Your task to perform on an android device: open app "Google Translate" (install if not already installed) Image 0: 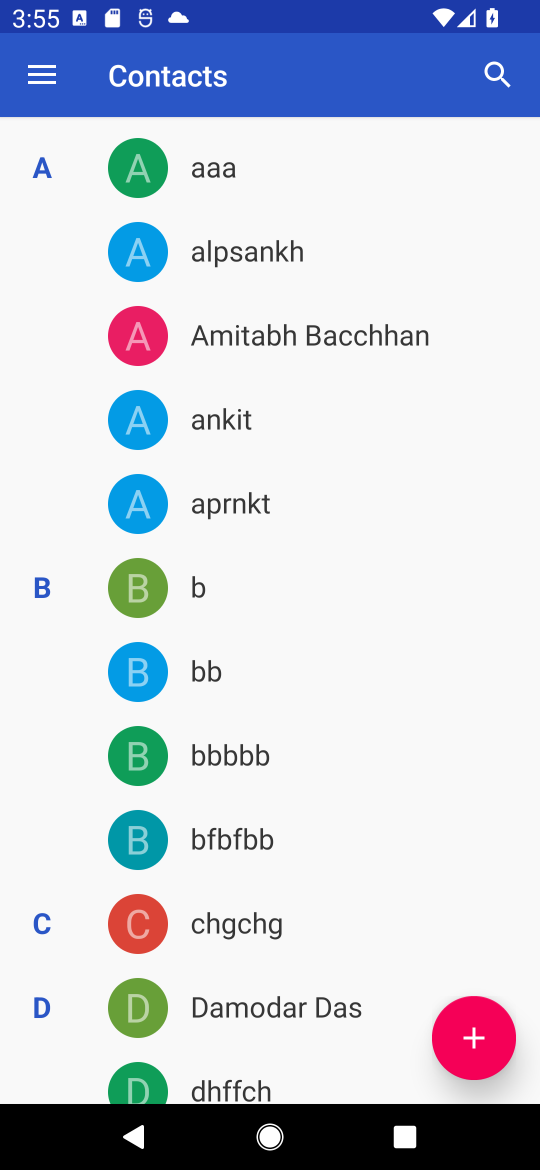
Step 0: press home button
Your task to perform on an android device: open app "Google Translate" (install if not already installed) Image 1: 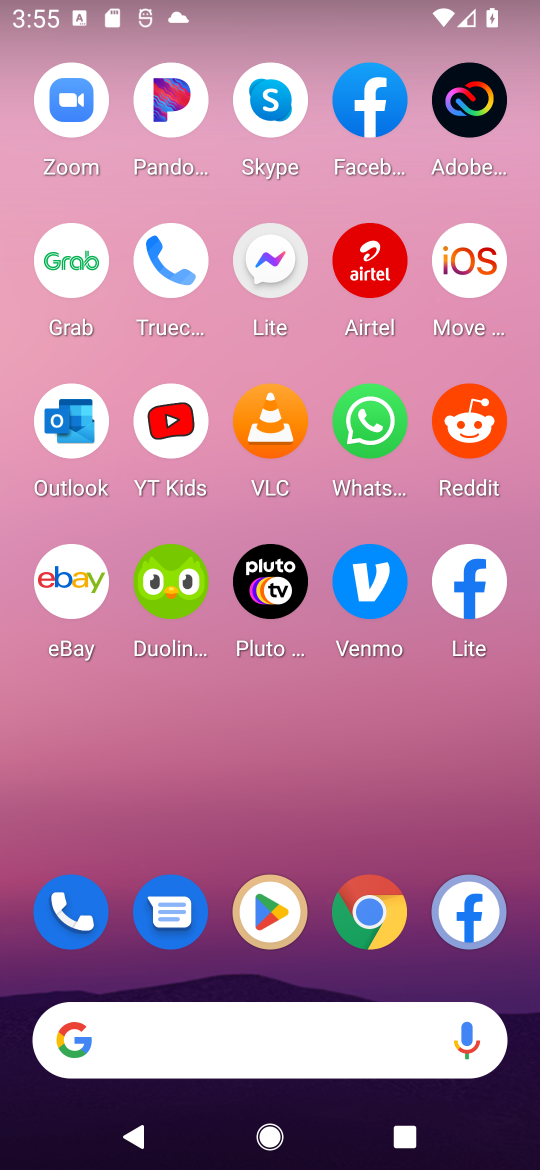
Step 1: drag from (176, 1049) to (302, 203)
Your task to perform on an android device: open app "Google Translate" (install if not already installed) Image 2: 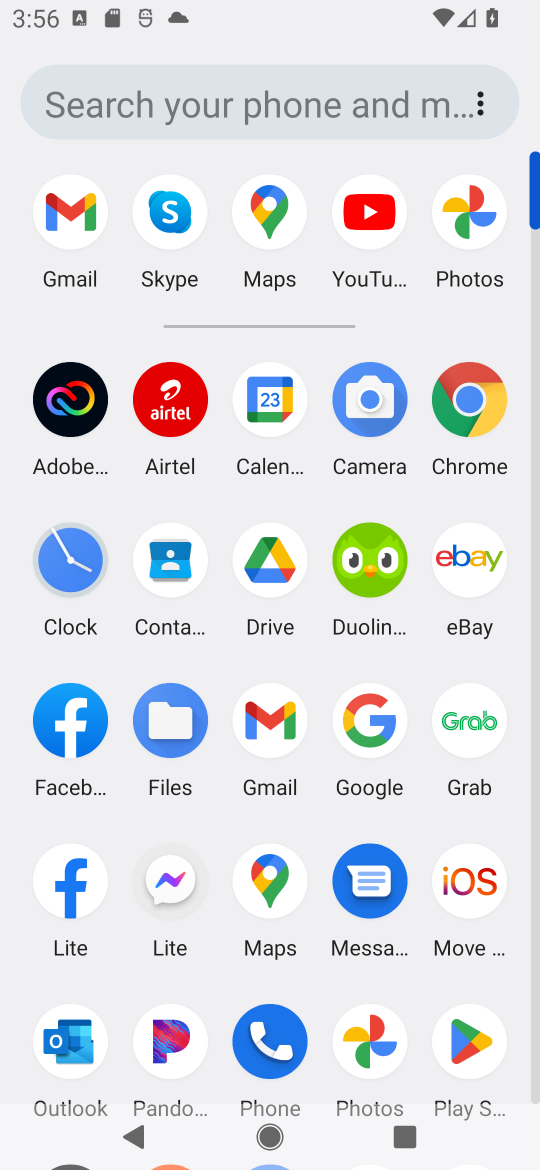
Step 2: click (470, 1039)
Your task to perform on an android device: open app "Google Translate" (install if not already installed) Image 3: 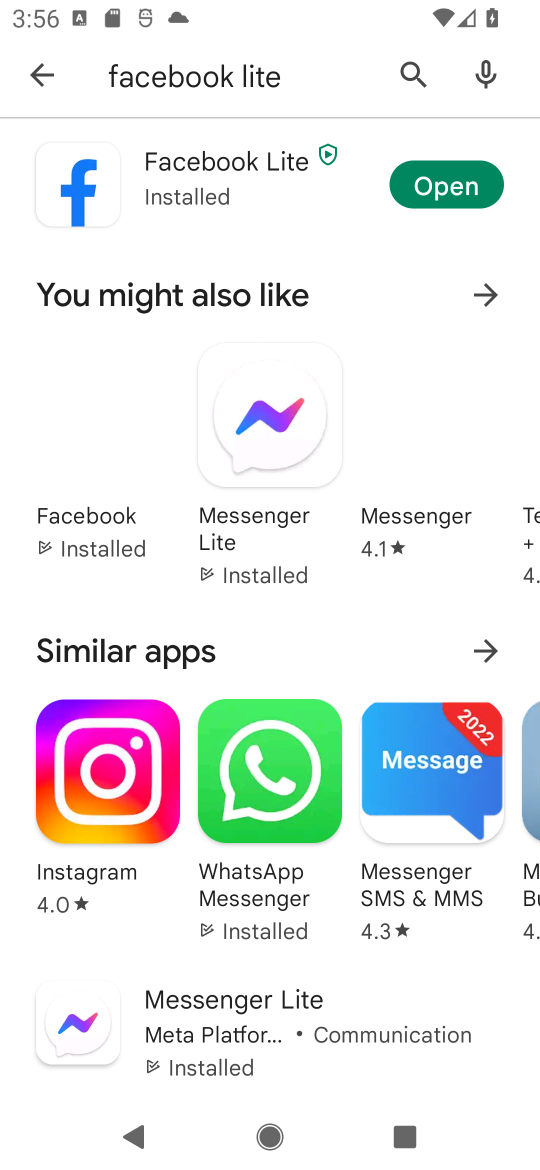
Step 3: press back button
Your task to perform on an android device: open app "Google Translate" (install if not already installed) Image 4: 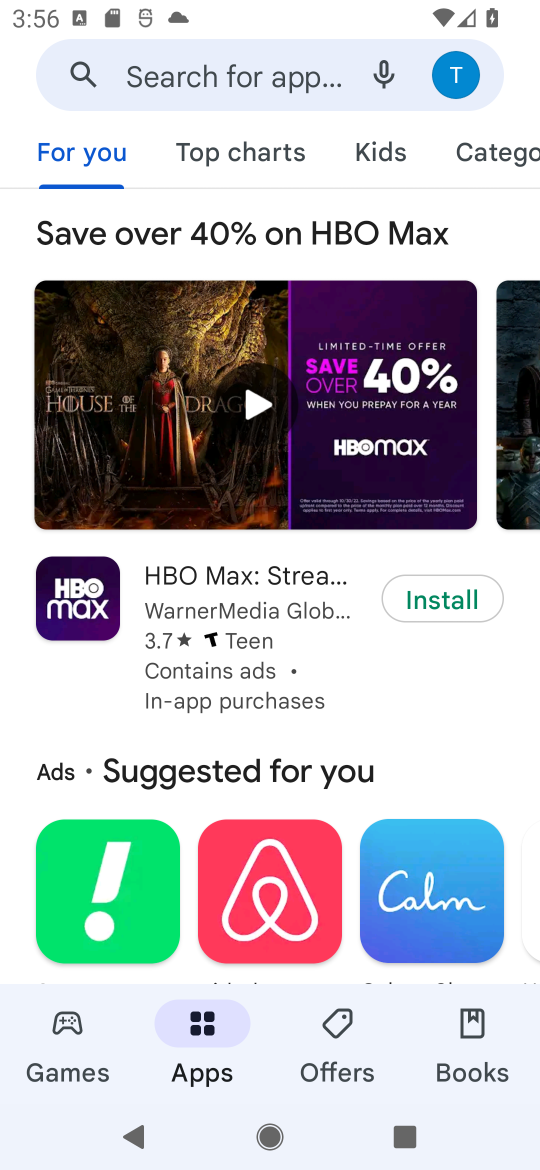
Step 4: click (224, 53)
Your task to perform on an android device: open app "Google Translate" (install if not already installed) Image 5: 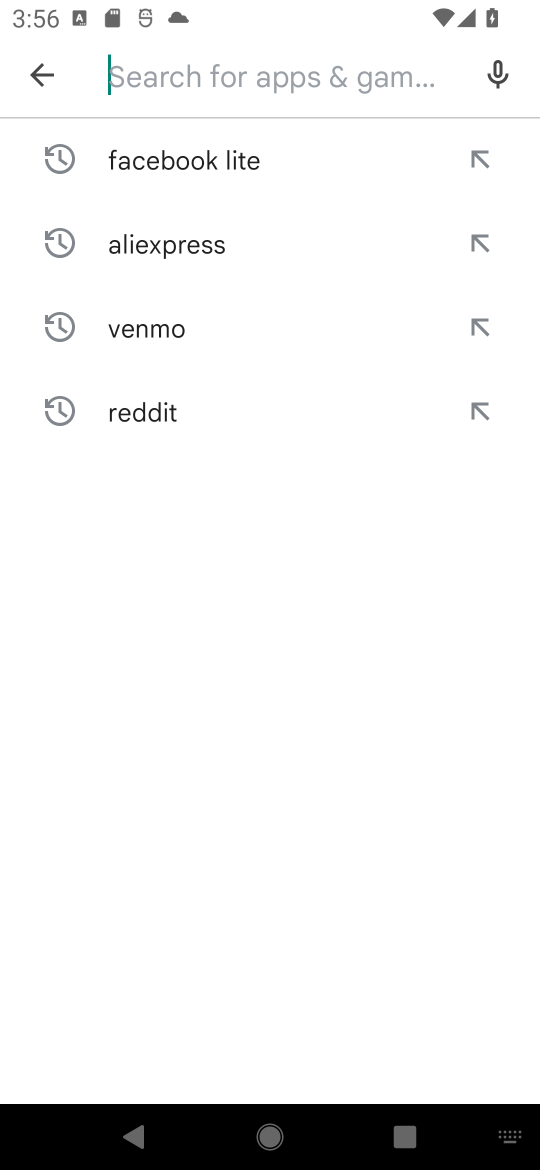
Step 5: type "Google Translate"
Your task to perform on an android device: open app "Google Translate" (install if not already installed) Image 6: 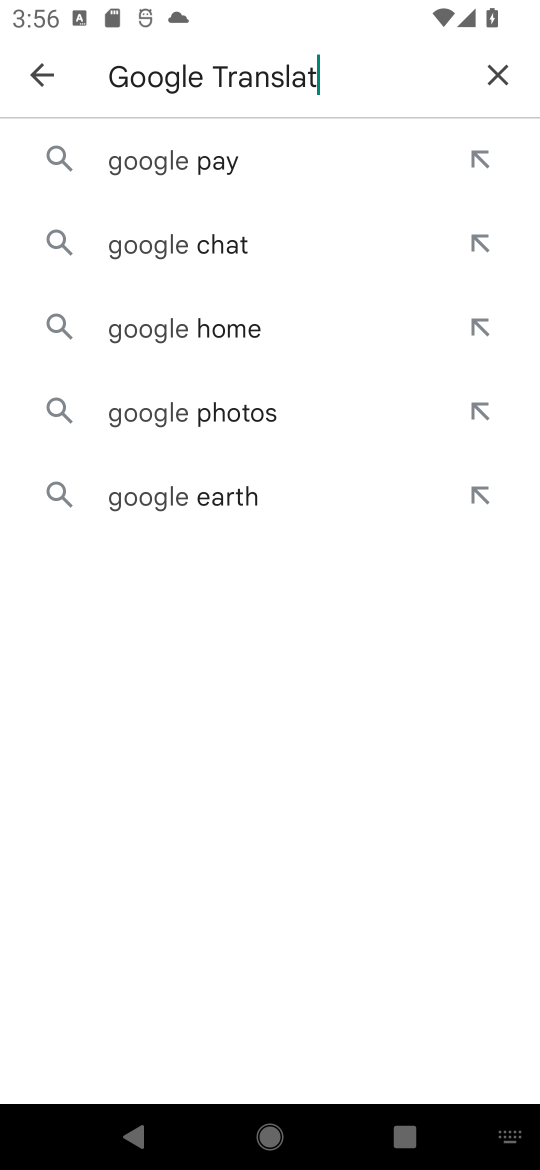
Step 6: type ""
Your task to perform on an android device: open app "Google Translate" (install if not already installed) Image 7: 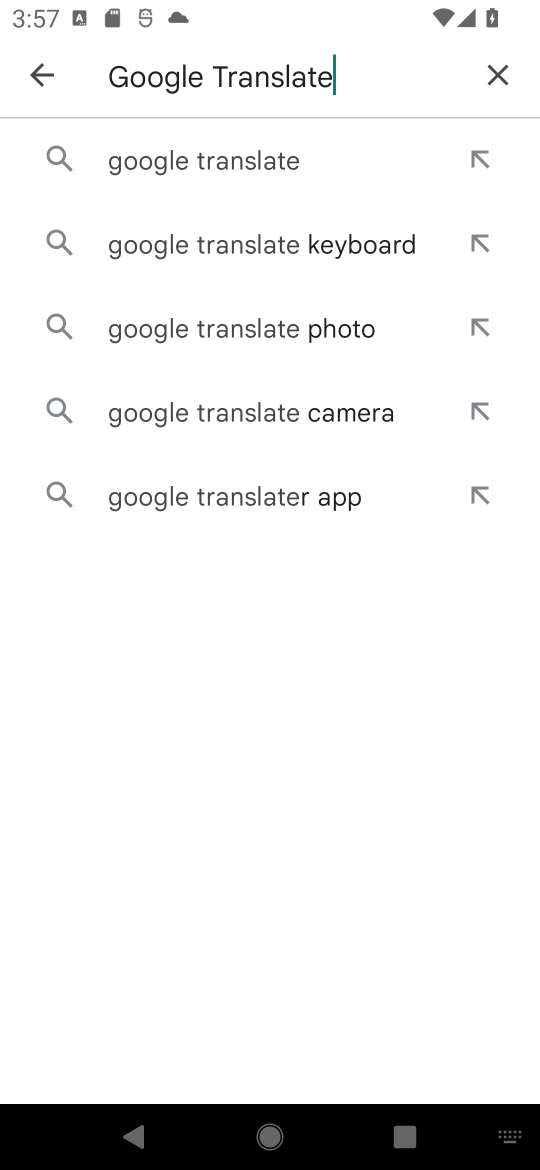
Step 7: click (252, 175)
Your task to perform on an android device: open app "Google Translate" (install if not already installed) Image 8: 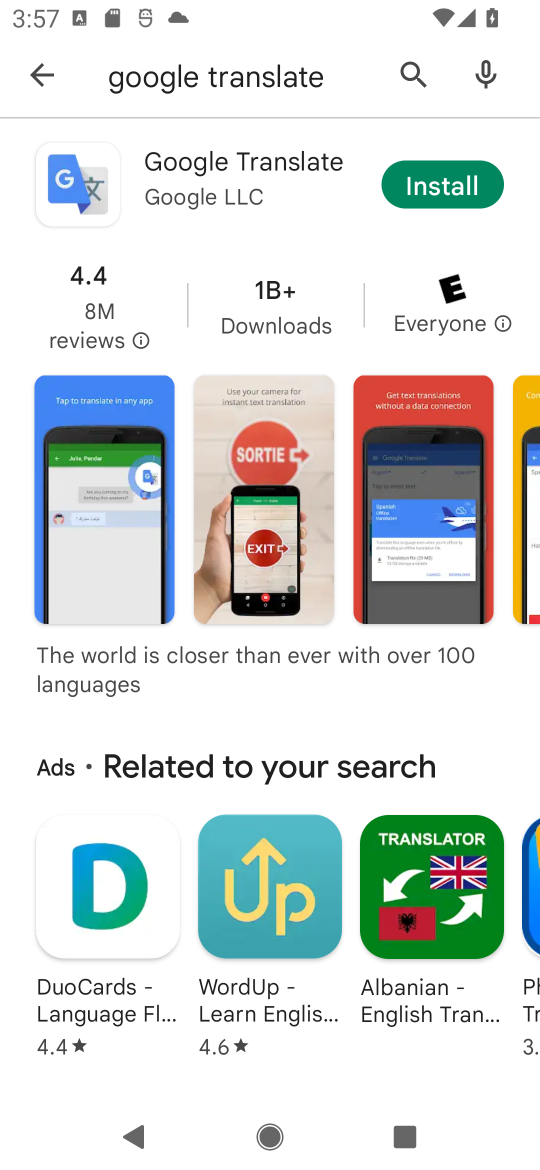
Step 8: click (447, 199)
Your task to perform on an android device: open app "Google Translate" (install if not already installed) Image 9: 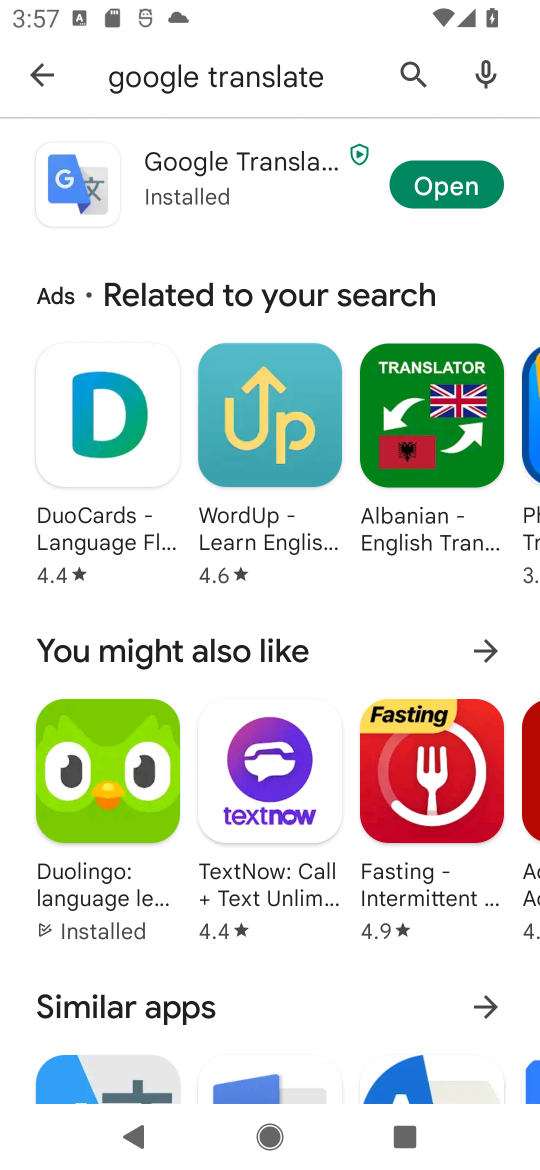
Step 9: click (447, 186)
Your task to perform on an android device: open app "Google Translate" (install if not already installed) Image 10: 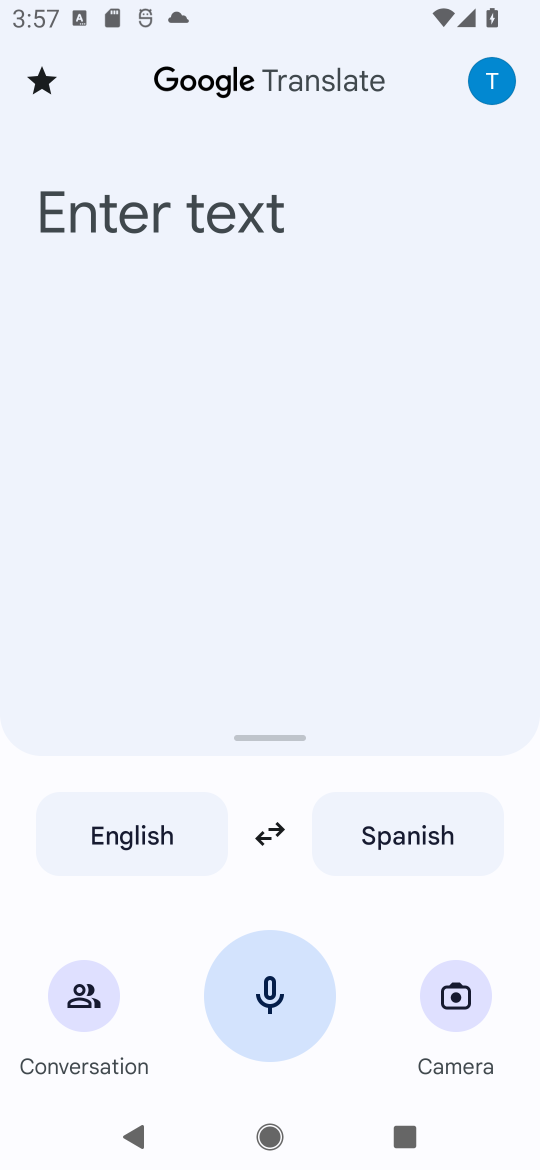
Step 10: task complete